Your task to perform on an android device: allow notifications from all sites in the chrome app Image 0: 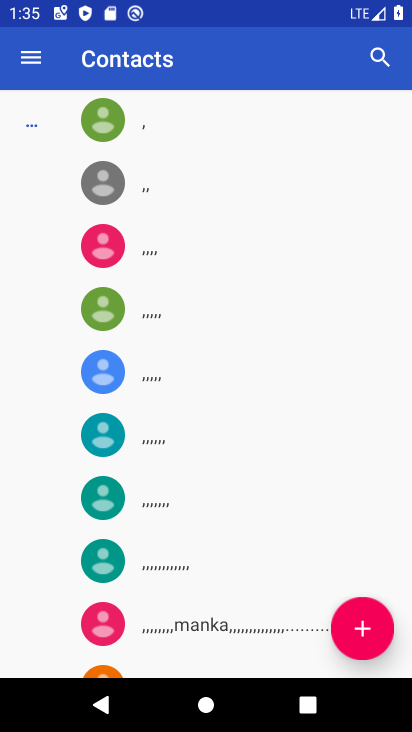
Step 0: press home button
Your task to perform on an android device: allow notifications from all sites in the chrome app Image 1: 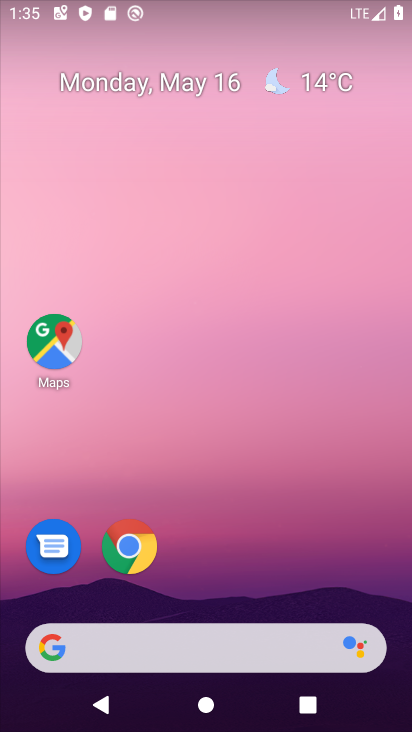
Step 1: drag from (221, 693) to (285, 224)
Your task to perform on an android device: allow notifications from all sites in the chrome app Image 2: 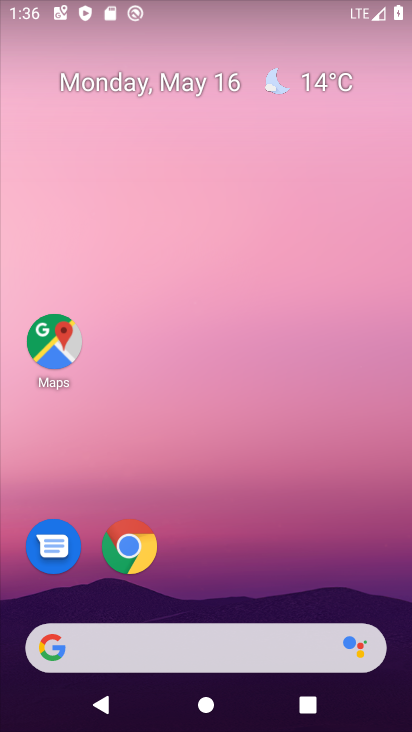
Step 2: drag from (305, 690) to (208, 124)
Your task to perform on an android device: allow notifications from all sites in the chrome app Image 3: 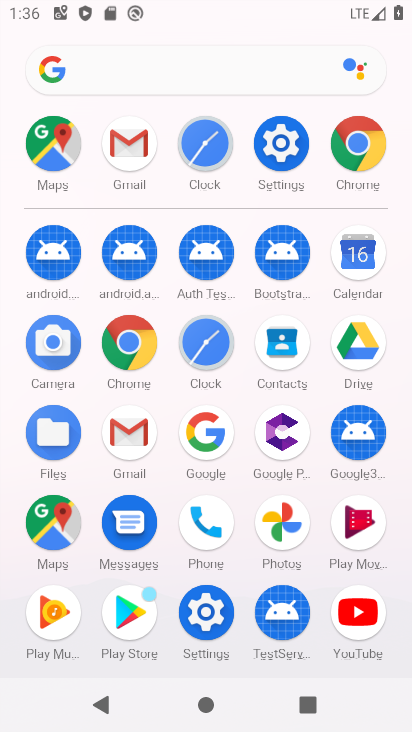
Step 3: click (369, 154)
Your task to perform on an android device: allow notifications from all sites in the chrome app Image 4: 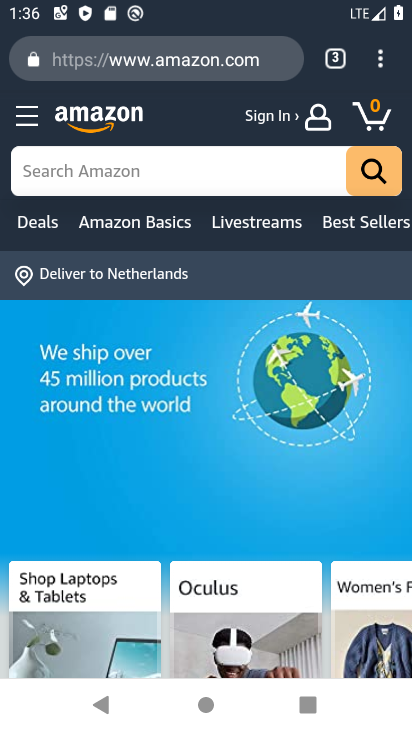
Step 4: click (381, 53)
Your task to perform on an android device: allow notifications from all sites in the chrome app Image 5: 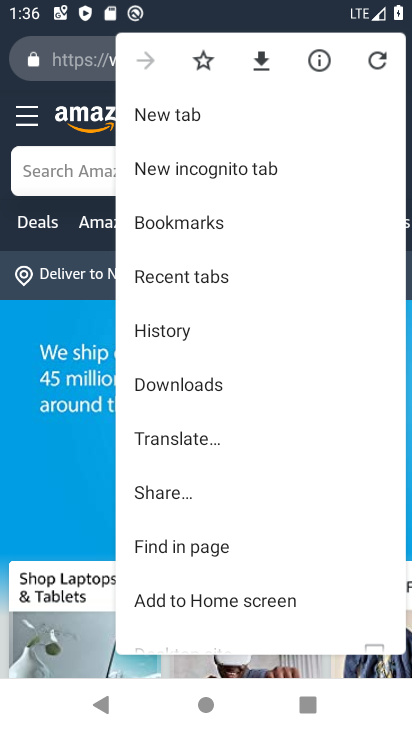
Step 5: drag from (242, 511) to (288, 236)
Your task to perform on an android device: allow notifications from all sites in the chrome app Image 6: 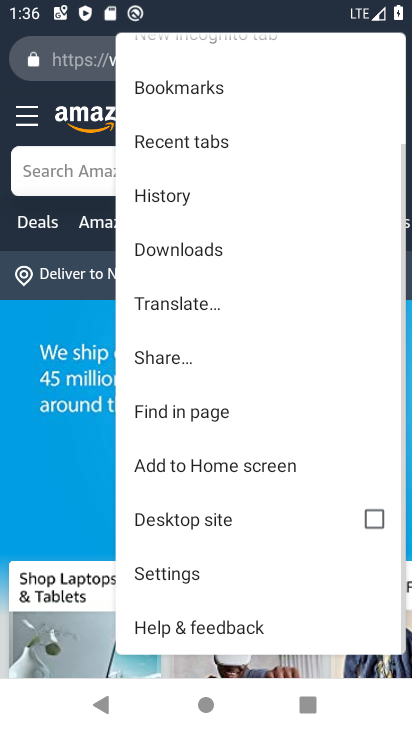
Step 6: click (196, 574)
Your task to perform on an android device: allow notifications from all sites in the chrome app Image 7: 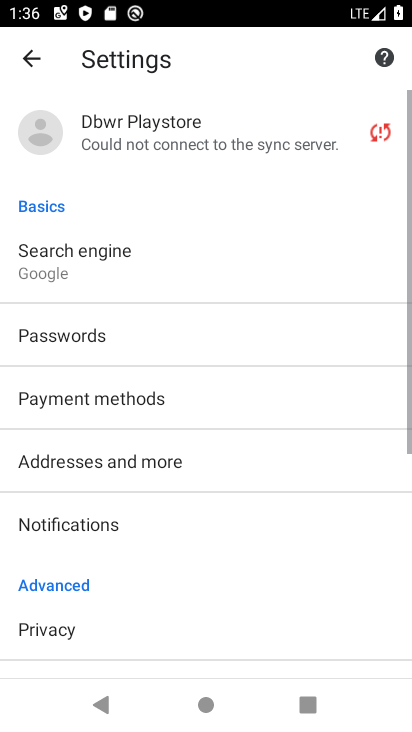
Step 7: drag from (174, 589) to (181, 289)
Your task to perform on an android device: allow notifications from all sites in the chrome app Image 8: 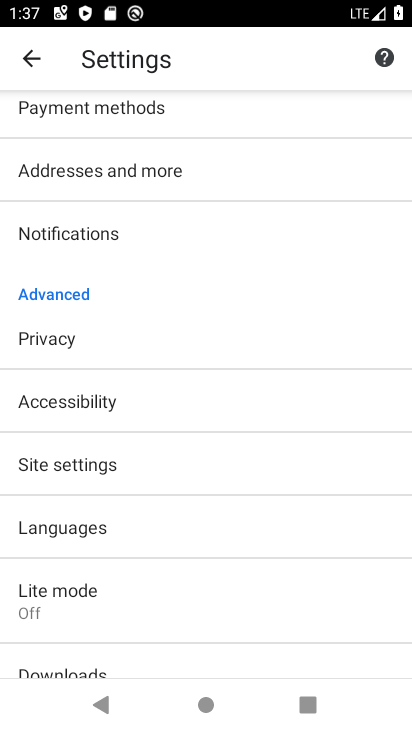
Step 8: click (124, 463)
Your task to perform on an android device: allow notifications from all sites in the chrome app Image 9: 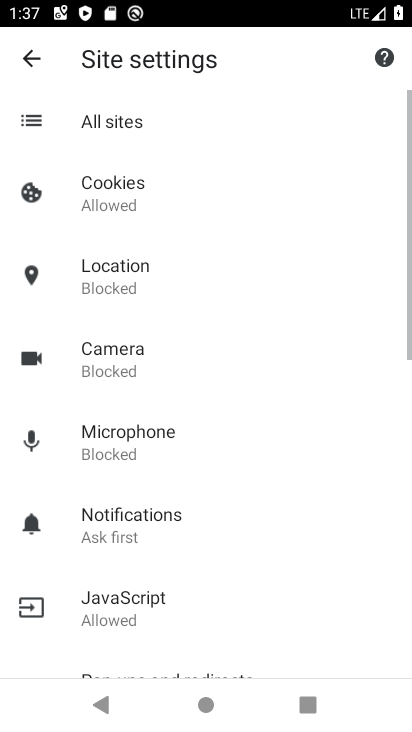
Step 9: click (161, 529)
Your task to perform on an android device: allow notifications from all sites in the chrome app Image 10: 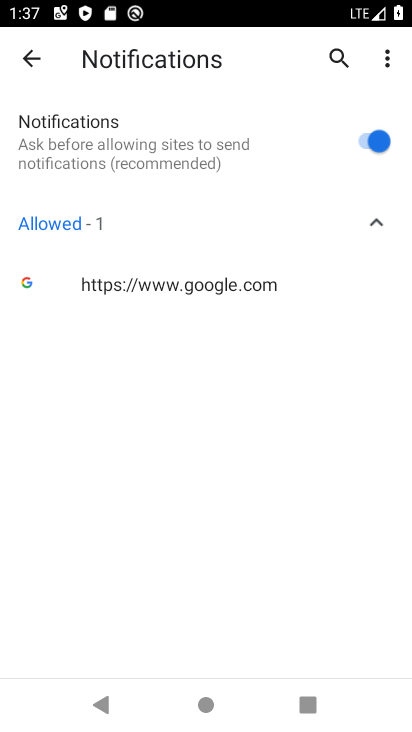
Step 10: task complete